Your task to perform on an android device: turn on showing notifications on the lock screen Image 0: 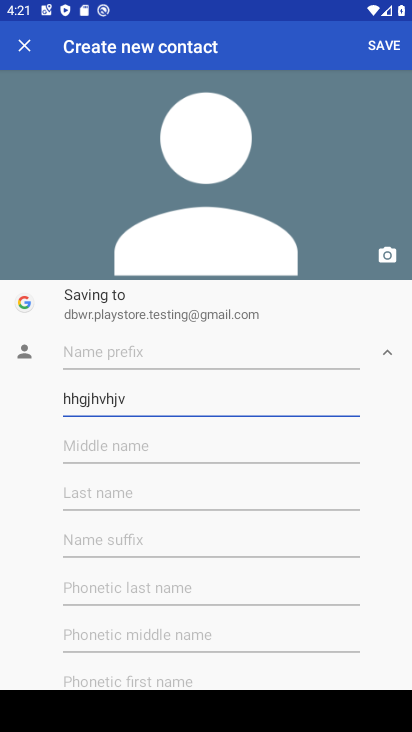
Step 0: press home button
Your task to perform on an android device: turn on showing notifications on the lock screen Image 1: 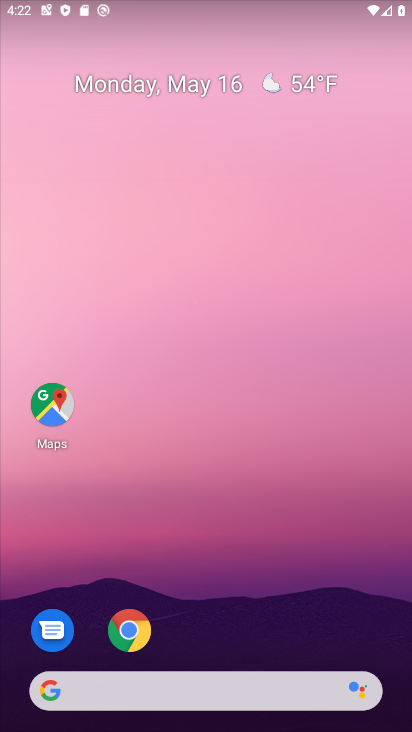
Step 1: drag from (210, 630) to (185, 95)
Your task to perform on an android device: turn on showing notifications on the lock screen Image 2: 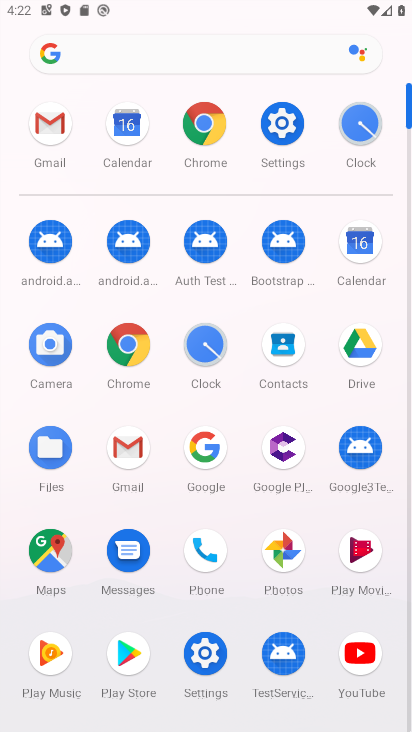
Step 2: click (275, 144)
Your task to perform on an android device: turn on showing notifications on the lock screen Image 3: 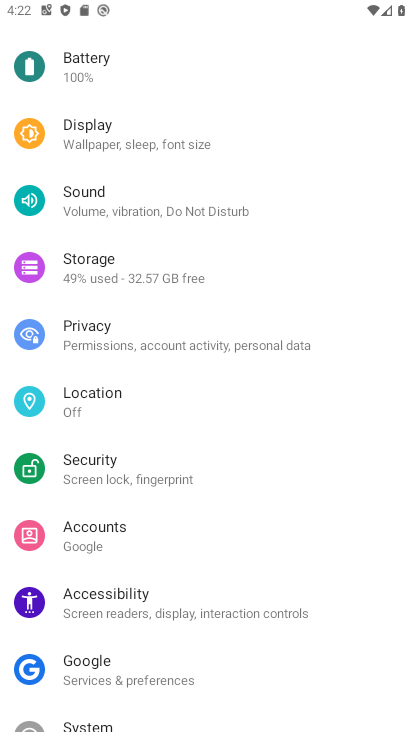
Step 3: drag from (238, 125) to (217, 518)
Your task to perform on an android device: turn on showing notifications on the lock screen Image 4: 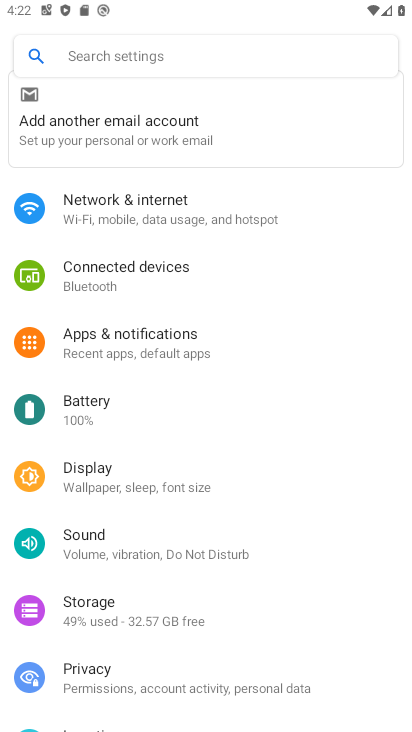
Step 4: click (202, 341)
Your task to perform on an android device: turn on showing notifications on the lock screen Image 5: 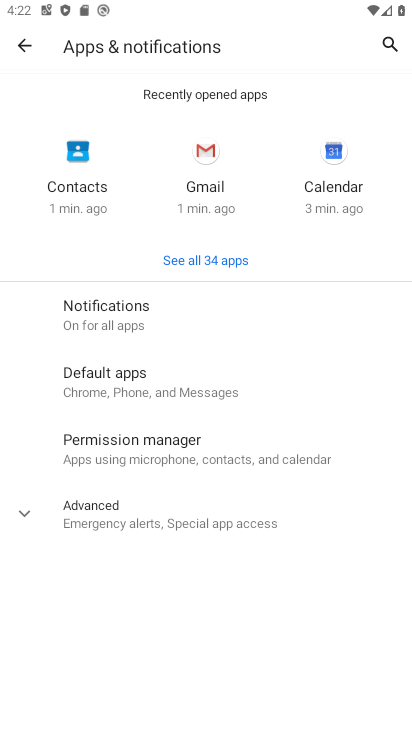
Step 5: click (189, 324)
Your task to perform on an android device: turn on showing notifications on the lock screen Image 6: 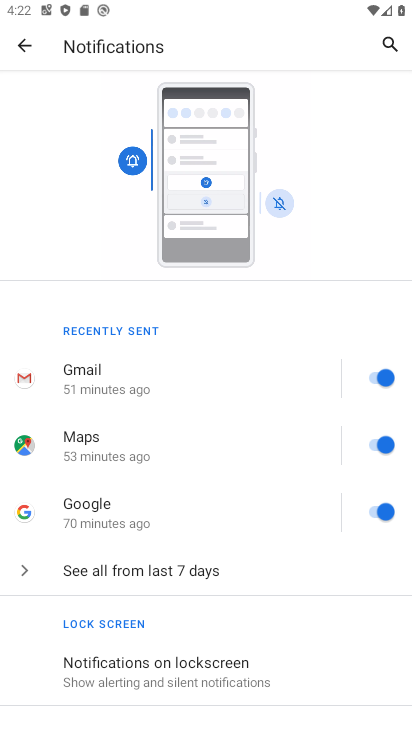
Step 6: click (260, 675)
Your task to perform on an android device: turn on showing notifications on the lock screen Image 7: 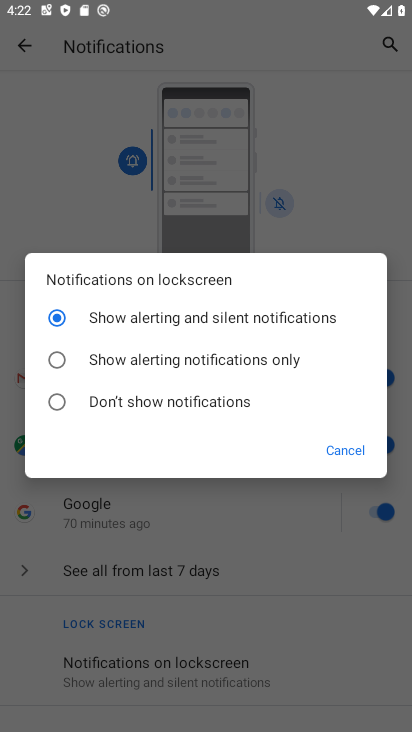
Step 7: task complete